Your task to perform on an android device: Do I have any events tomorrow? Image 0: 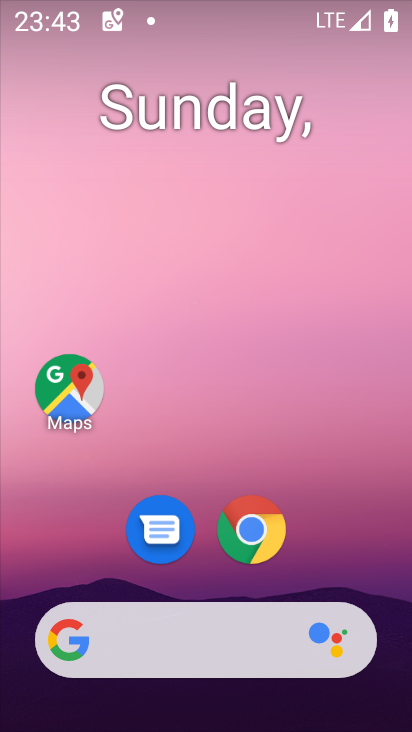
Step 0: drag from (315, 554) to (232, 141)
Your task to perform on an android device: Do I have any events tomorrow? Image 1: 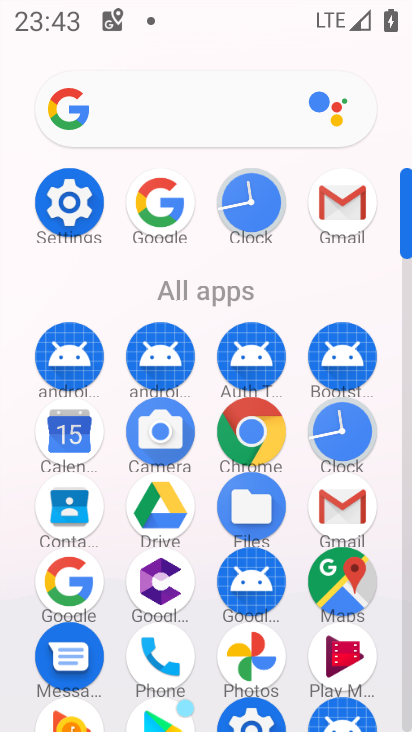
Step 1: click (66, 433)
Your task to perform on an android device: Do I have any events tomorrow? Image 2: 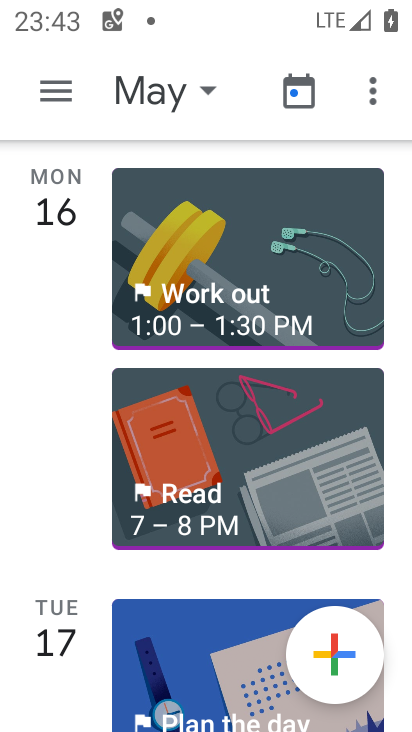
Step 2: click (307, 97)
Your task to perform on an android device: Do I have any events tomorrow? Image 3: 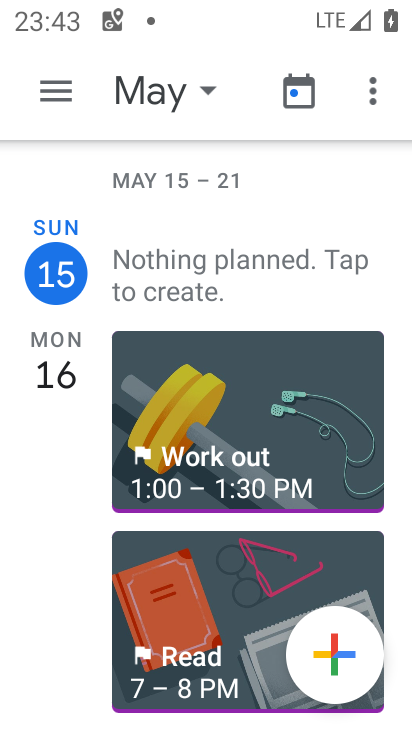
Step 3: click (213, 91)
Your task to perform on an android device: Do I have any events tomorrow? Image 4: 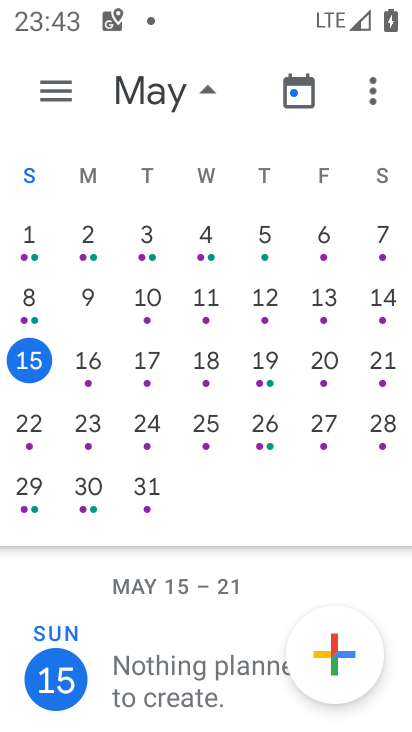
Step 4: click (91, 369)
Your task to perform on an android device: Do I have any events tomorrow? Image 5: 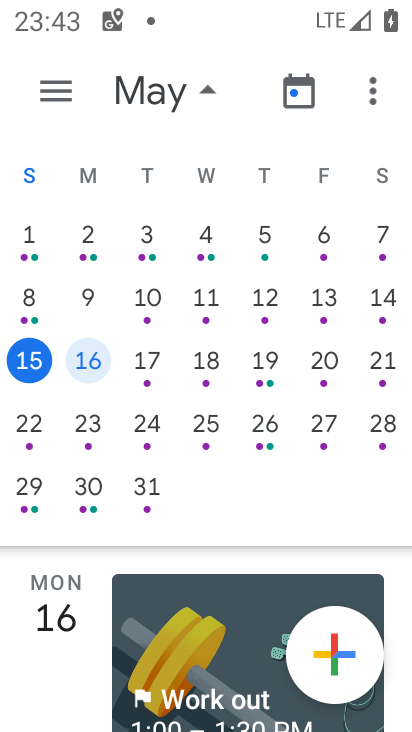
Step 5: click (51, 96)
Your task to perform on an android device: Do I have any events tomorrow? Image 6: 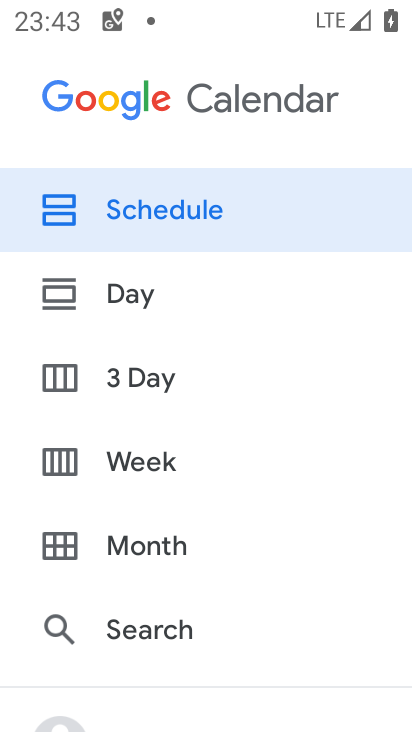
Step 6: click (137, 226)
Your task to perform on an android device: Do I have any events tomorrow? Image 7: 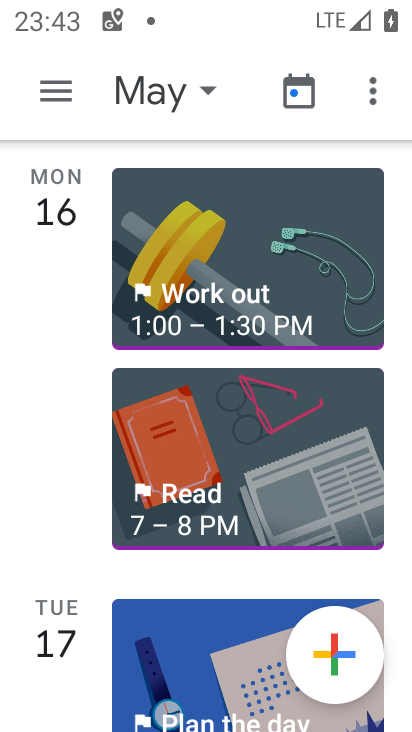
Step 7: task complete